Your task to perform on an android device: Open the Play Movies app and select the watchlist tab. Image 0: 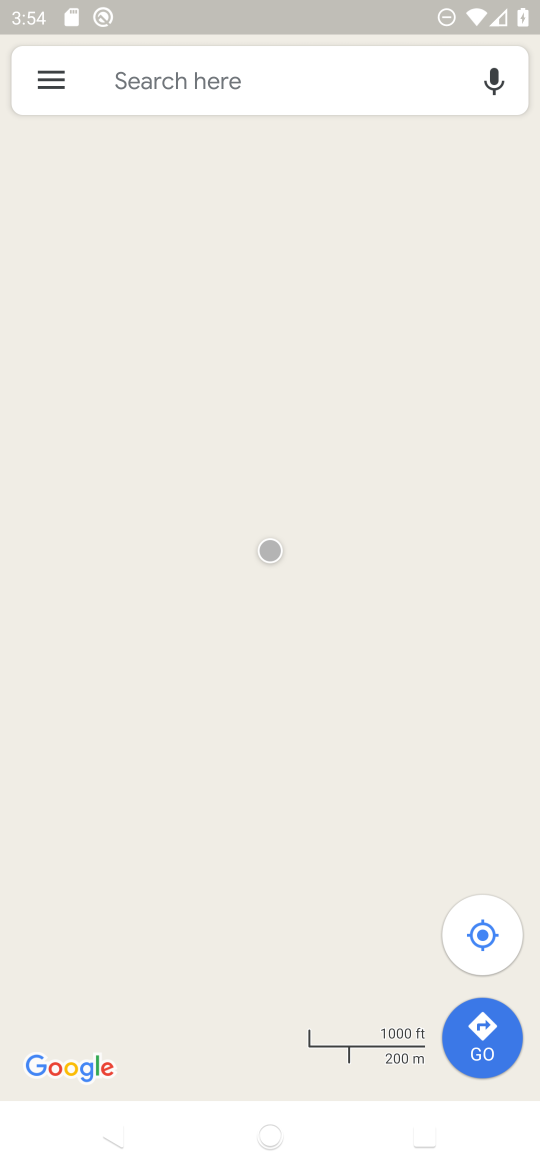
Step 0: press back button
Your task to perform on an android device: Open the Play Movies app and select the watchlist tab. Image 1: 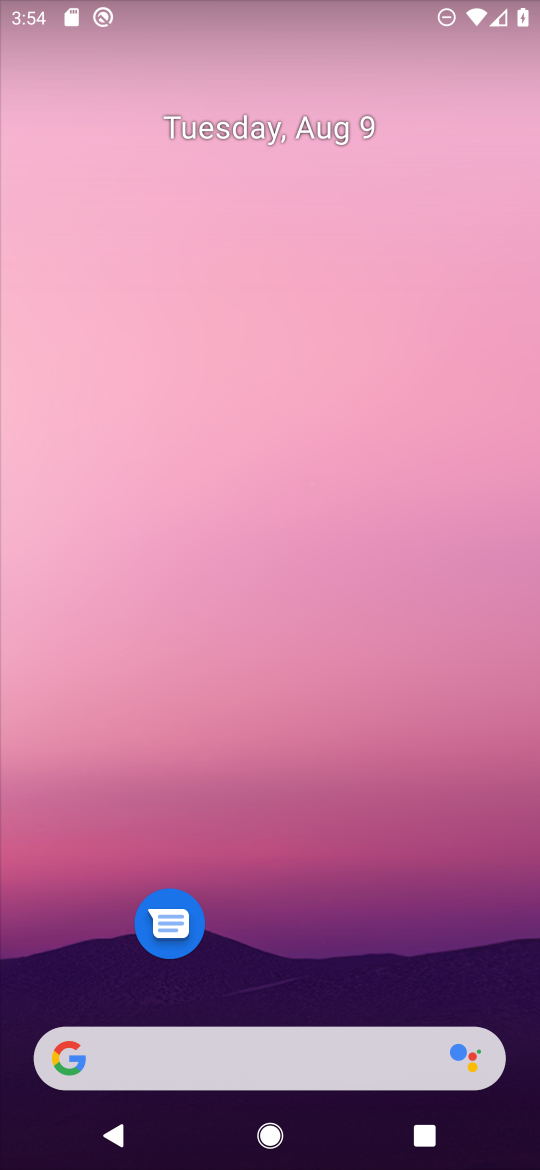
Step 1: drag from (307, 1010) to (358, 126)
Your task to perform on an android device: Open the Play Movies app and select the watchlist tab. Image 2: 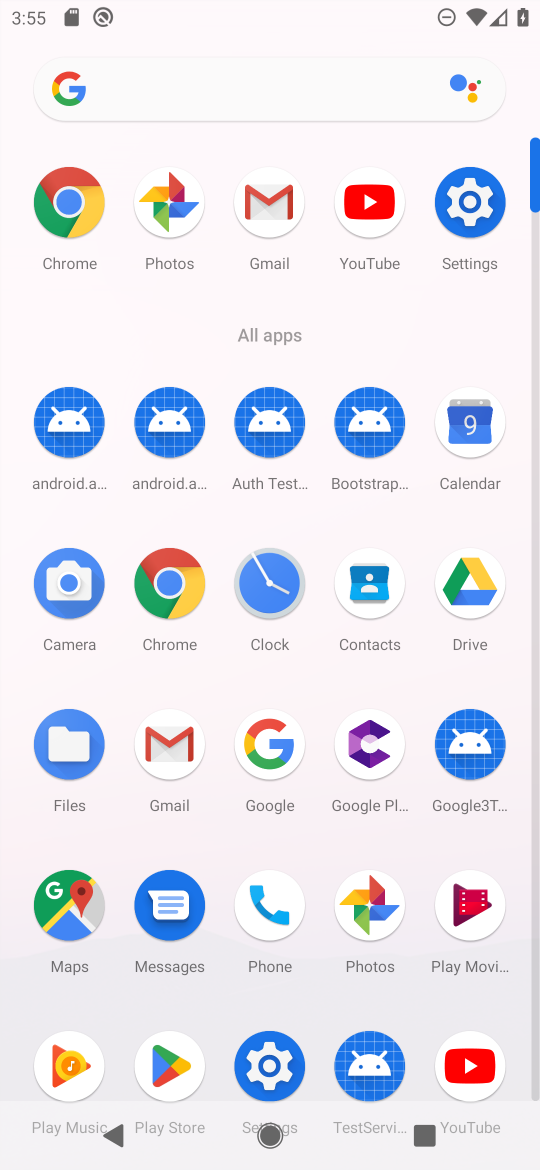
Step 2: click (468, 907)
Your task to perform on an android device: Open the Play Movies app and select the watchlist tab. Image 3: 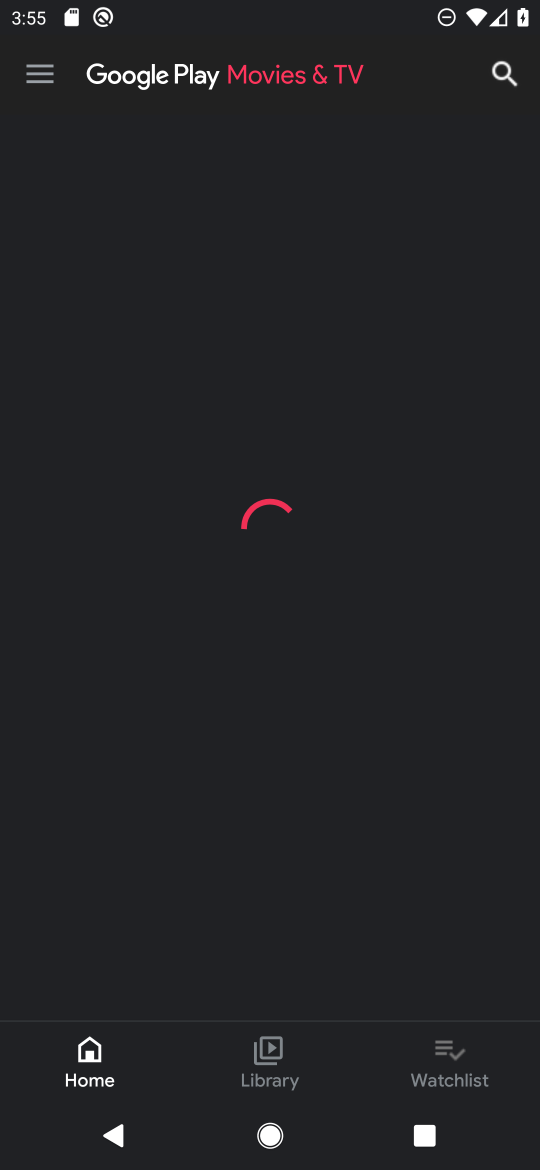
Step 3: click (446, 1060)
Your task to perform on an android device: Open the Play Movies app and select the watchlist tab. Image 4: 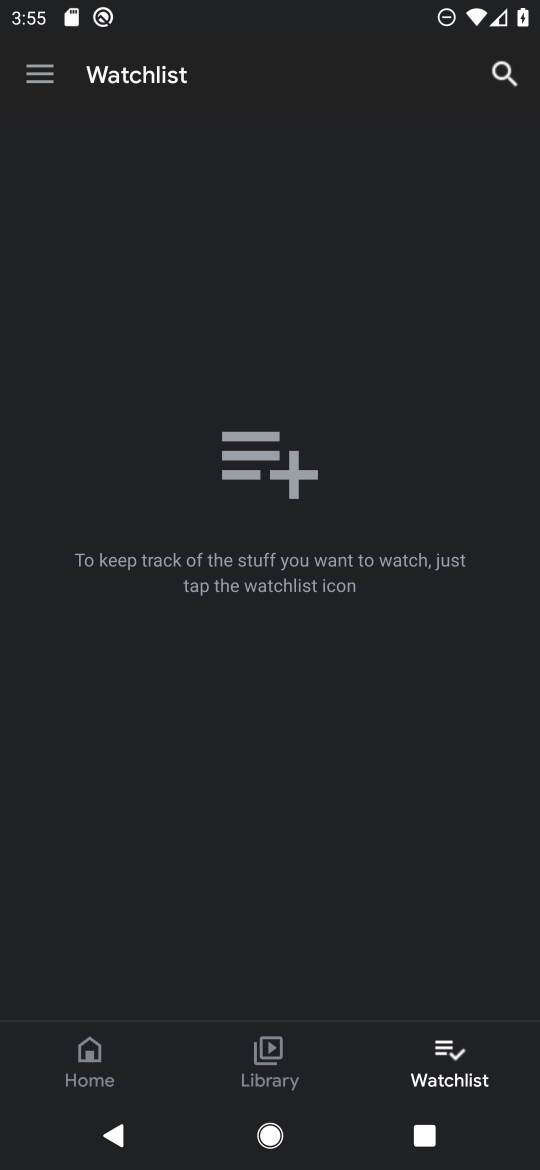
Step 4: task complete